Your task to perform on an android device: Set the phone to "Do not disturb". Image 0: 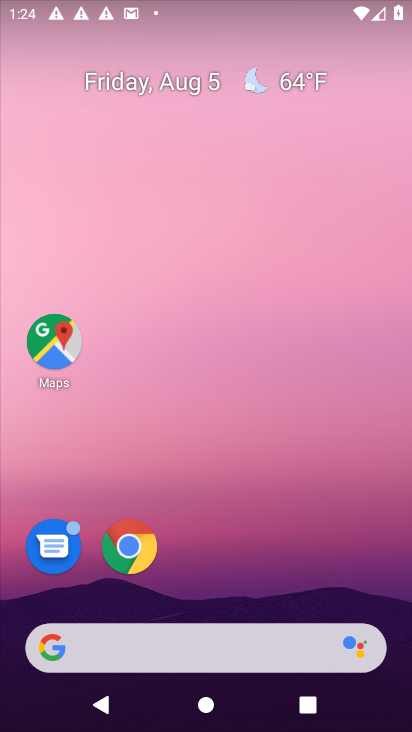
Step 0: press home button
Your task to perform on an android device: Set the phone to "Do not disturb". Image 1: 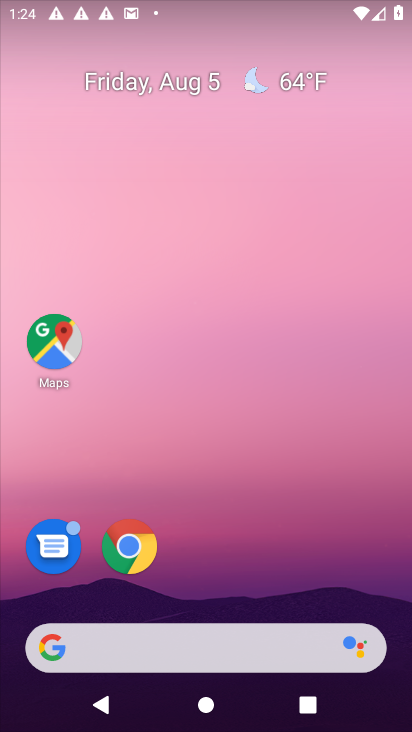
Step 1: drag from (225, 603) to (227, 23)
Your task to perform on an android device: Set the phone to "Do not disturb". Image 2: 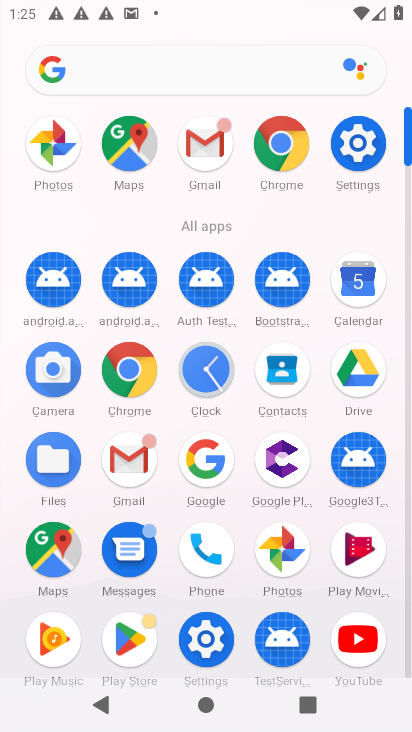
Step 2: drag from (206, 9) to (262, 481)
Your task to perform on an android device: Set the phone to "Do not disturb". Image 3: 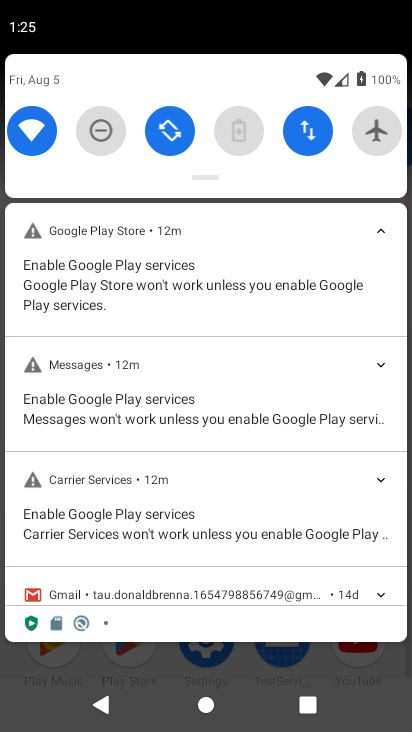
Step 3: click (101, 130)
Your task to perform on an android device: Set the phone to "Do not disturb". Image 4: 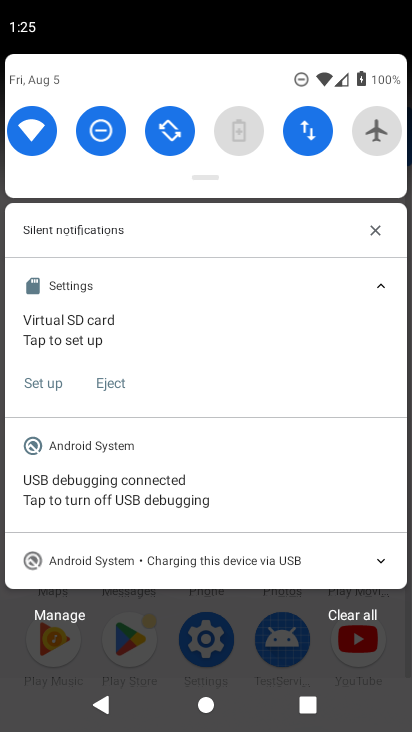
Step 4: task complete